Your task to perform on an android device: check out phone information Image 0: 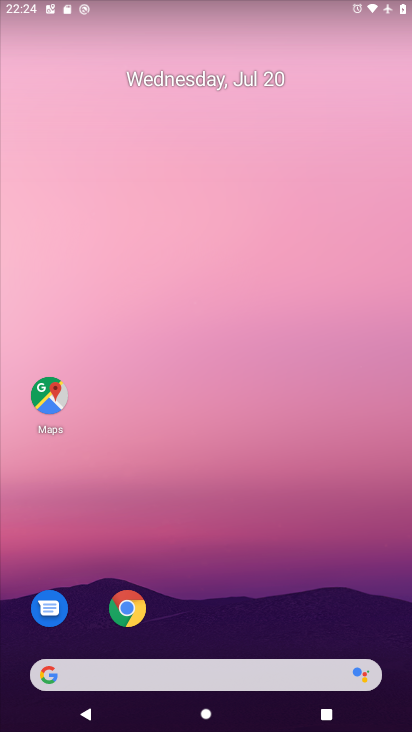
Step 0: drag from (239, 642) to (230, 146)
Your task to perform on an android device: check out phone information Image 1: 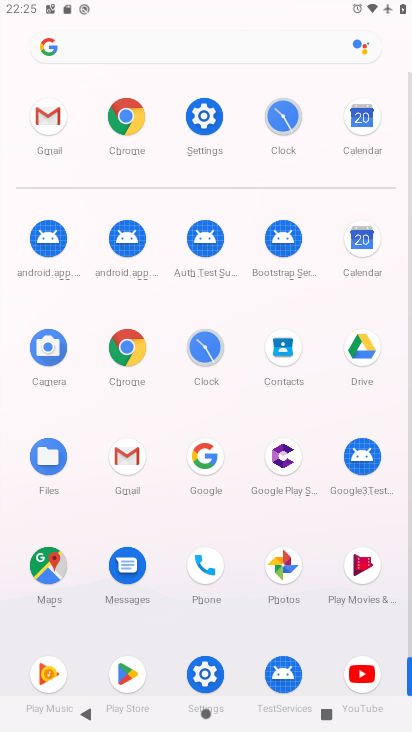
Step 1: click (216, 102)
Your task to perform on an android device: check out phone information Image 2: 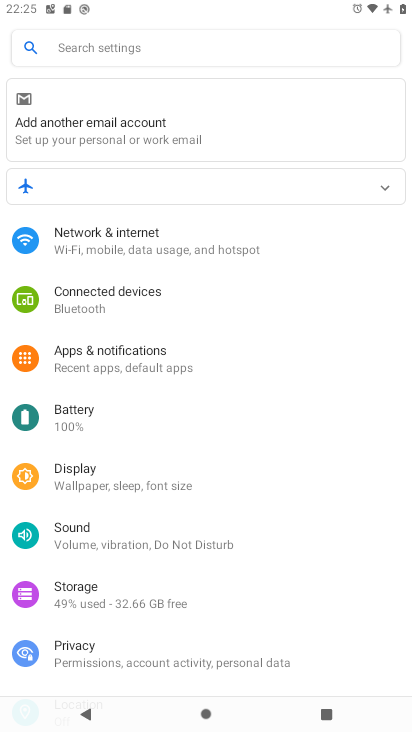
Step 2: drag from (216, 574) to (224, 133)
Your task to perform on an android device: check out phone information Image 3: 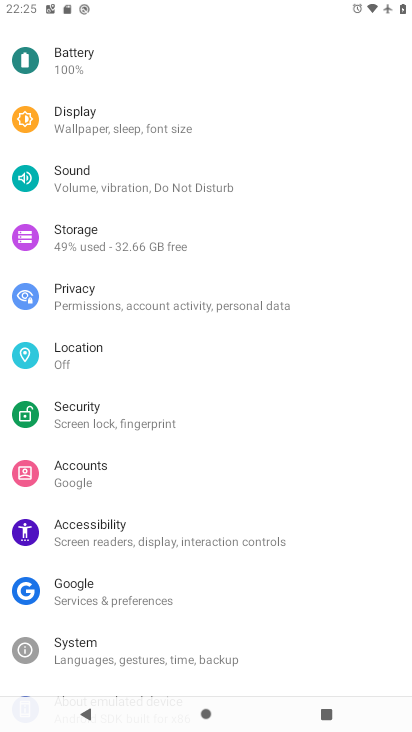
Step 3: drag from (153, 643) to (172, 255)
Your task to perform on an android device: check out phone information Image 4: 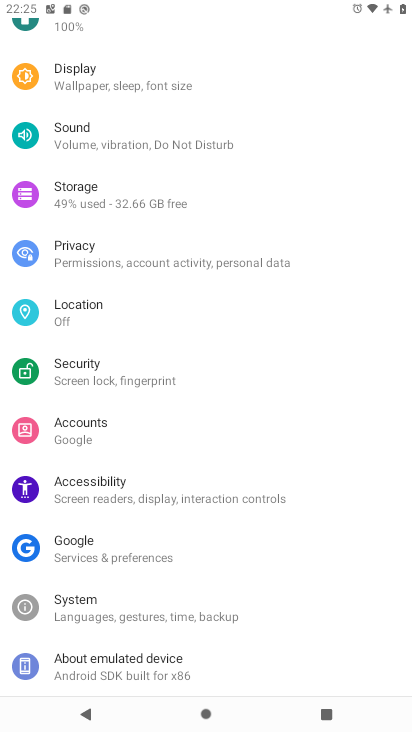
Step 4: click (101, 669)
Your task to perform on an android device: check out phone information Image 5: 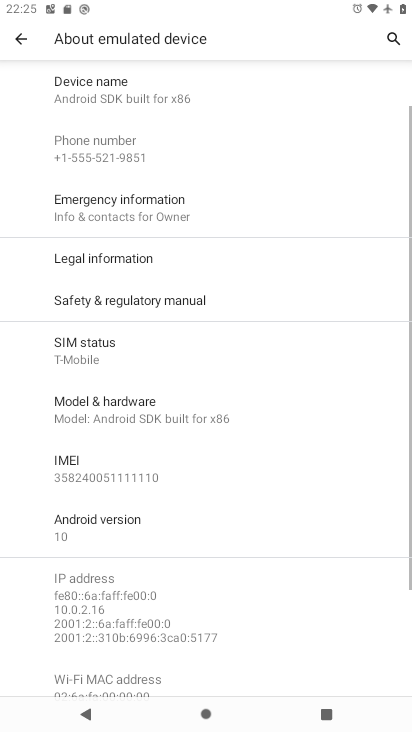
Step 5: task complete